Your task to perform on an android device: turn off notifications in google photos Image 0: 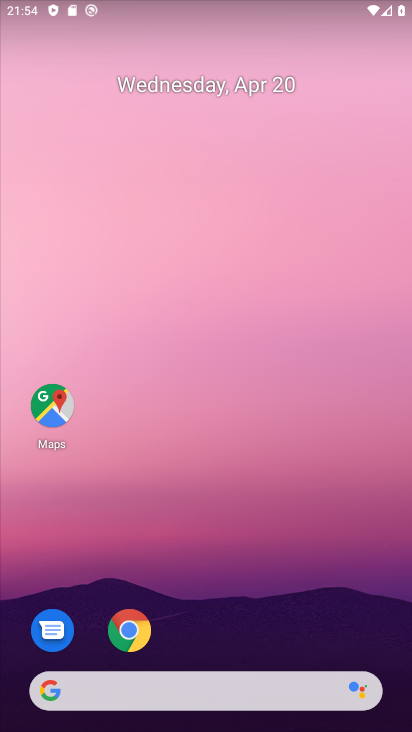
Step 0: drag from (255, 616) to (144, 27)
Your task to perform on an android device: turn off notifications in google photos Image 1: 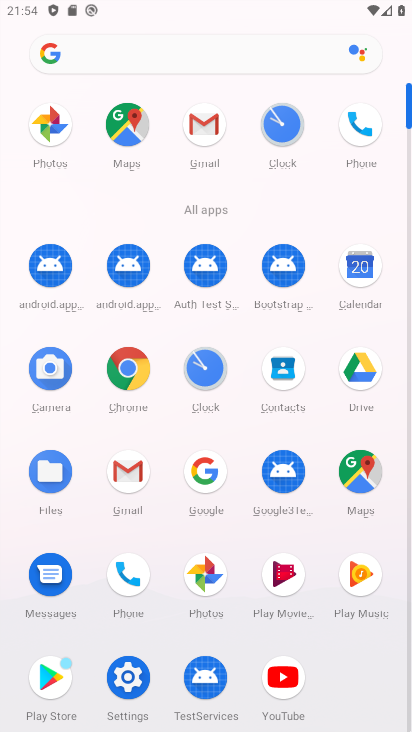
Step 1: click (207, 571)
Your task to perform on an android device: turn off notifications in google photos Image 2: 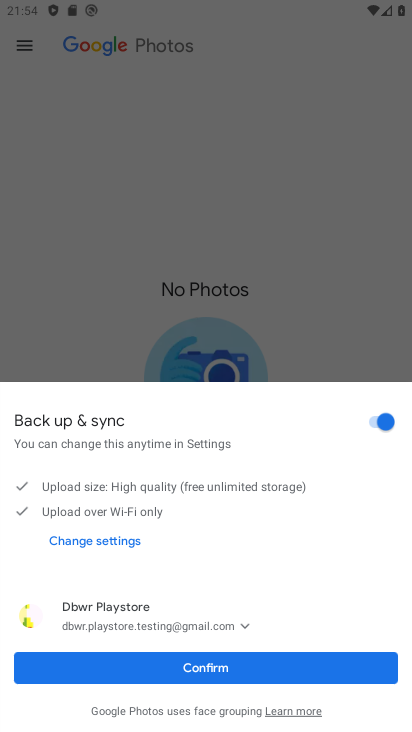
Step 2: click (220, 668)
Your task to perform on an android device: turn off notifications in google photos Image 3: 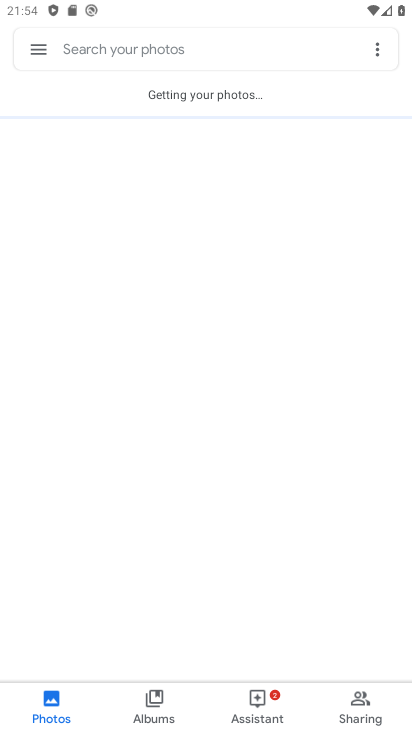
Step 3: click (376, 41)
Your task to perform on an android device: turn off notifications in google photos Image 4: 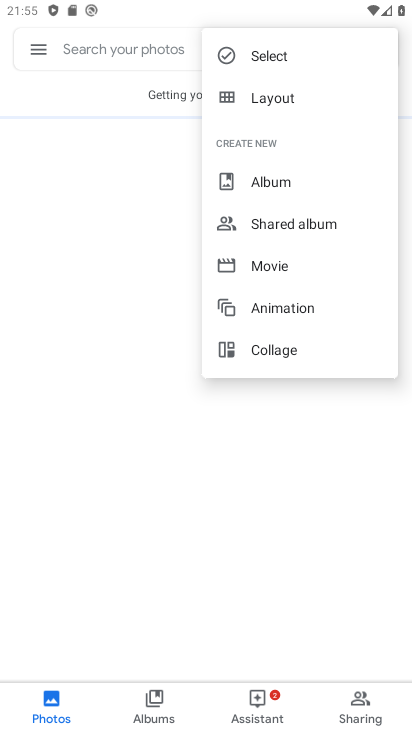
Step 4: click (35, 47)
Your task to perform on an android device: turn off notifications in google photos Image 5: 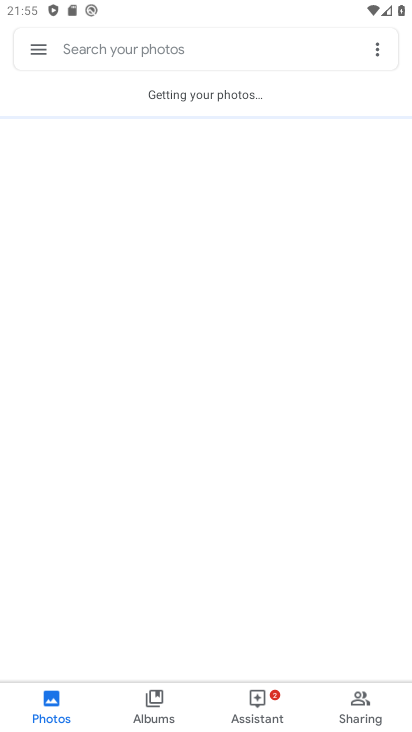
Step 5: click (35, 47)
Your task to perform on an android device: turn off notifications in google photos Image 6: 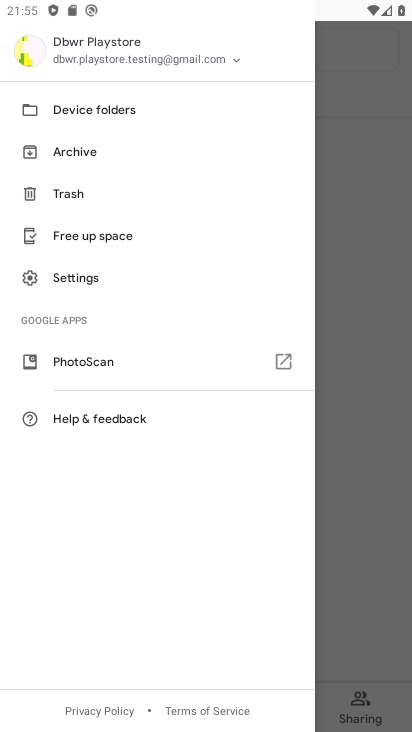
Step 6: click (124, 276)
Your task to perform on an android device: turn off notifications in google photos Image 7: 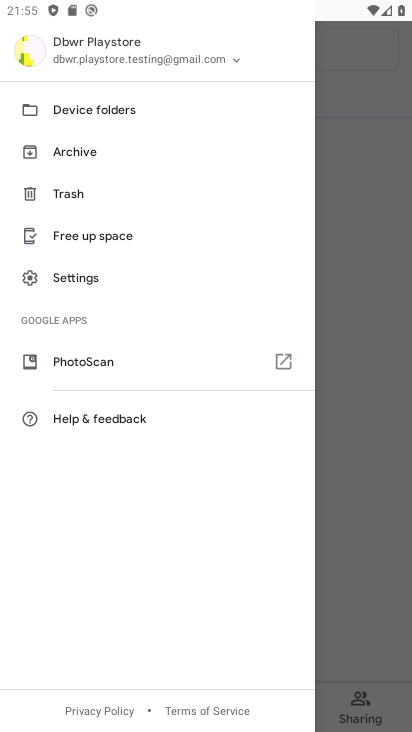
Step 7: click (107, 272)
Your task to perform on an android device: turn off notifications in google photos Image 8: 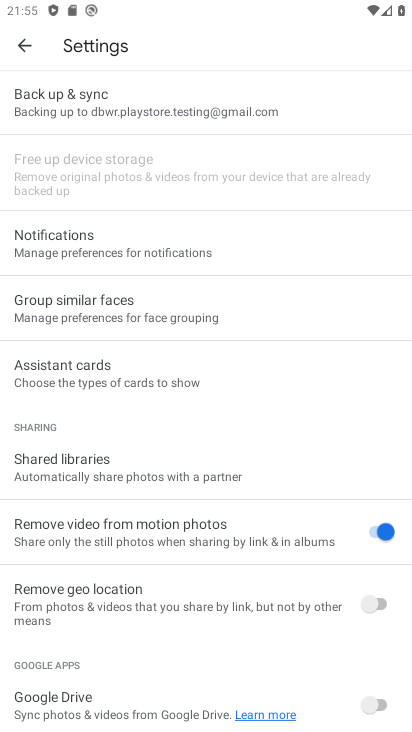
Step 8: click (126, 249)
Your task to perform on an android device: turn off notifications in google photos Image 9: 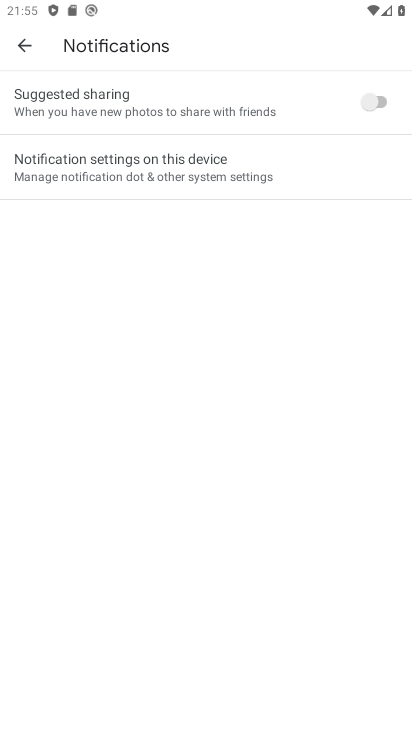
Step 9: click (345, 190)
Your task to perform on an android device: turn off notifications in google photos Image 10: 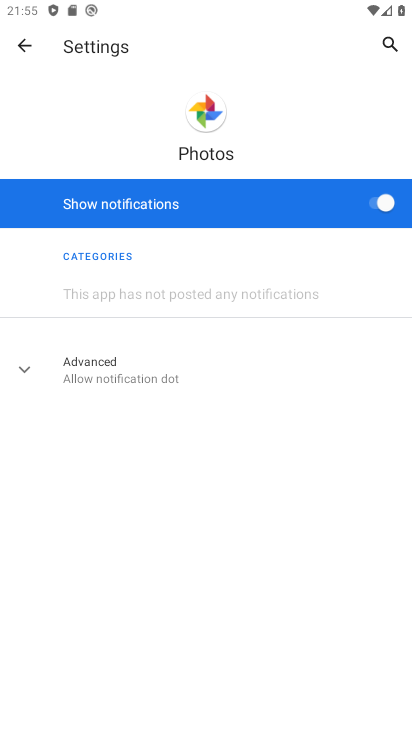
Step 10: click (380, 209)
Your task to perform on an android device: turn off notifications in google photos Image 11: 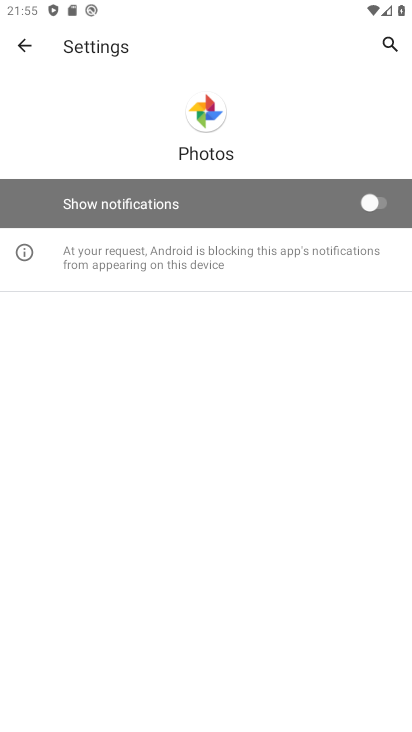
Step 11: task complete